Your task to perform on an android device: turn on translation in the chrome app Image 0: 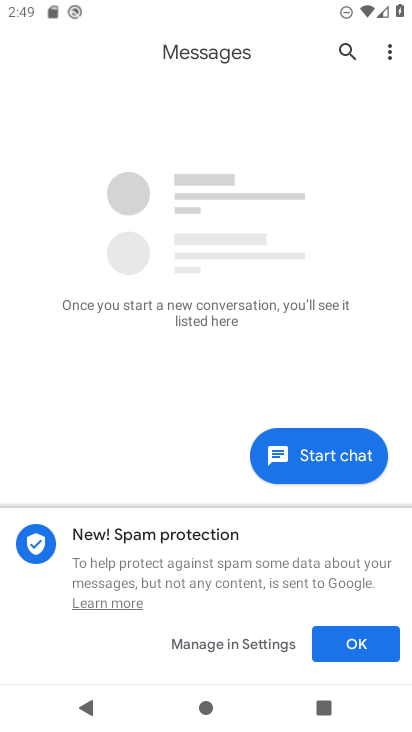
Step 0: press home button
Your task to perform on an android device: turn on translation in the chrome app Image 1: 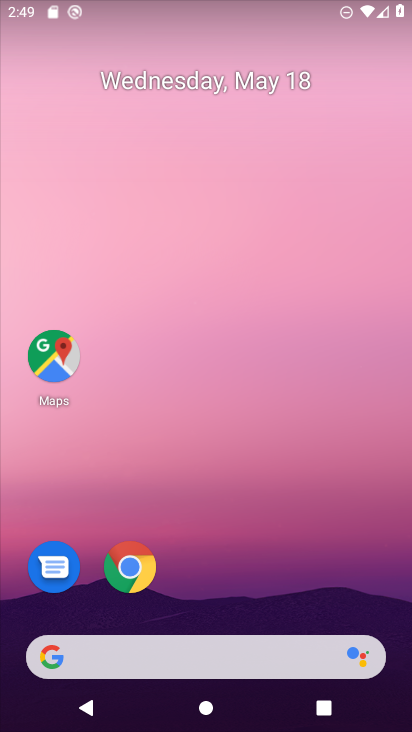
Step 1: click (127, 575)
Your task to perform on an android device: turn on translation in the chrome app Image 2: 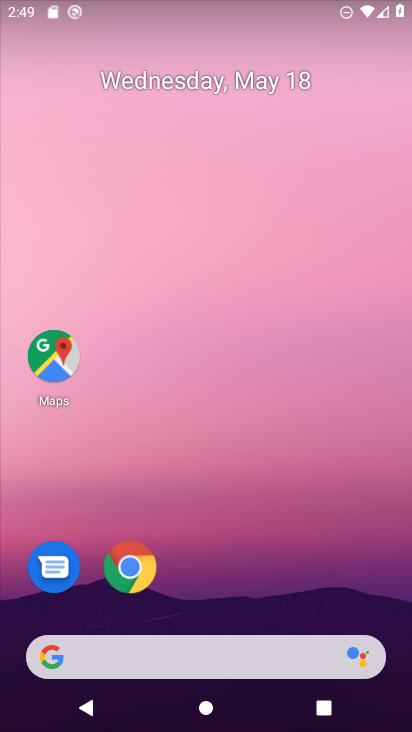
Step 2: click (128, 572)
Your task to perform on an android device: turn on translation in the chrome app Image 3: 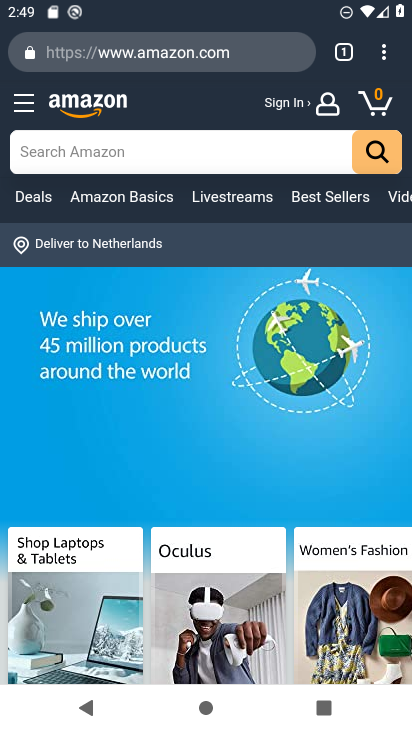
Step 3: click (387, 58)
Your task to perform on an android device: turn on translation in the chrome app Image 4: 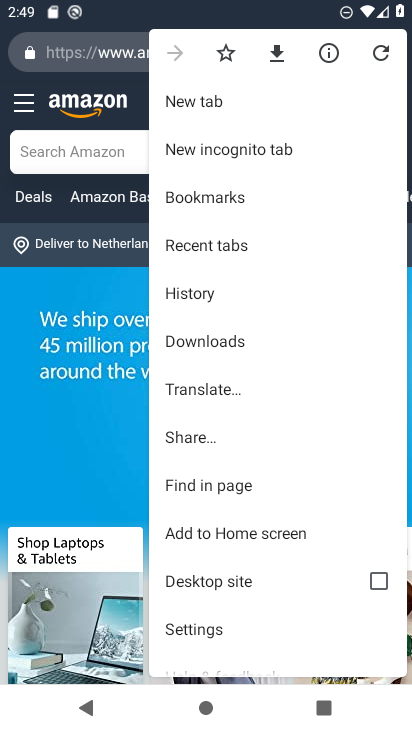
Step 4: click (203, 638)
Your task to perform on an android device: turn on translation in the chrome app Image 5: 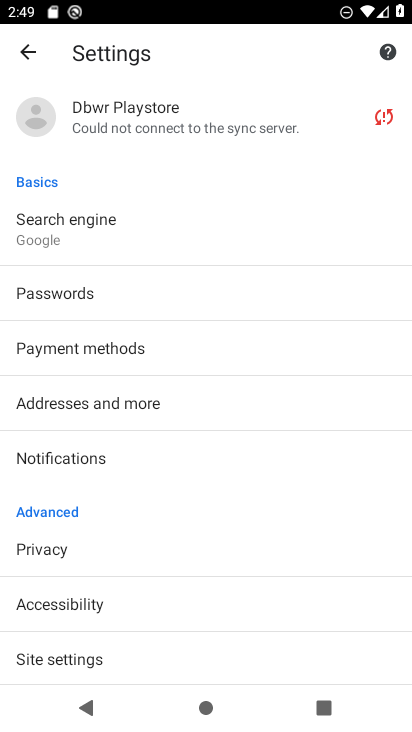
Step 5: drag from (102, 643) to (131, 355)
Your task to perform on an android device: turn on translation in the chrome app Image 6: 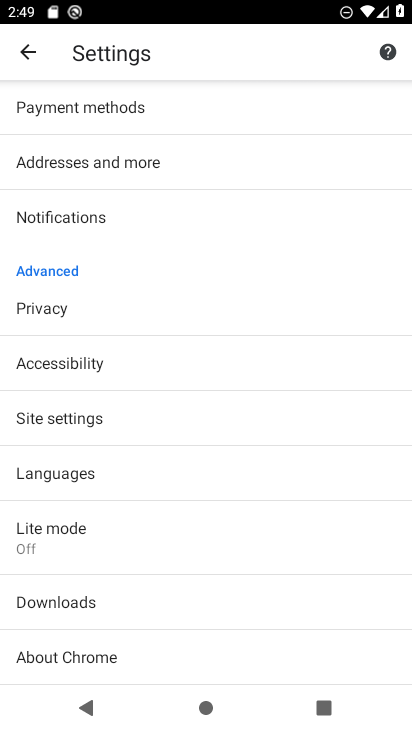
Step 6: click (76, 480)
Your task to perform on an android device: turn on translation in the chrome app Image 7: 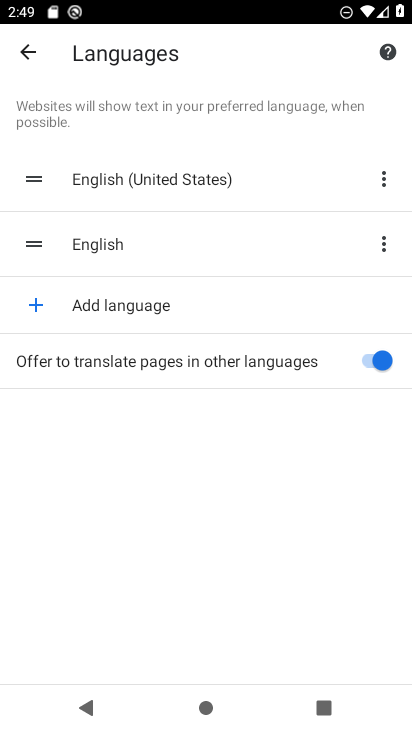
Step 7: task complete